Your task to perform on an android device: Go to settings Image 0: 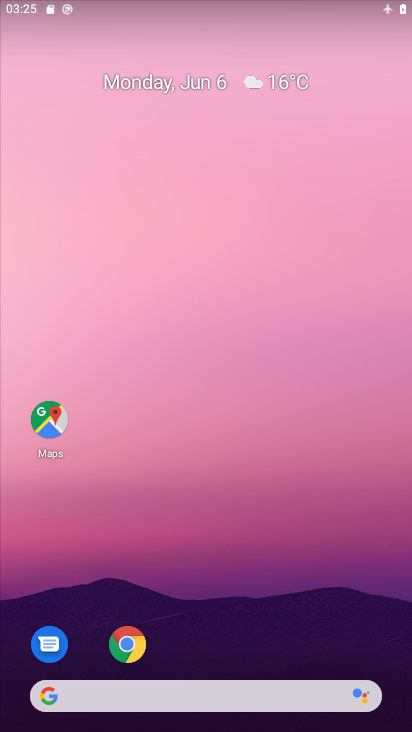
Step 0: drag from (236, 666) to (252, 0)
Your task to perform on an android device: Go to settings Image 1: 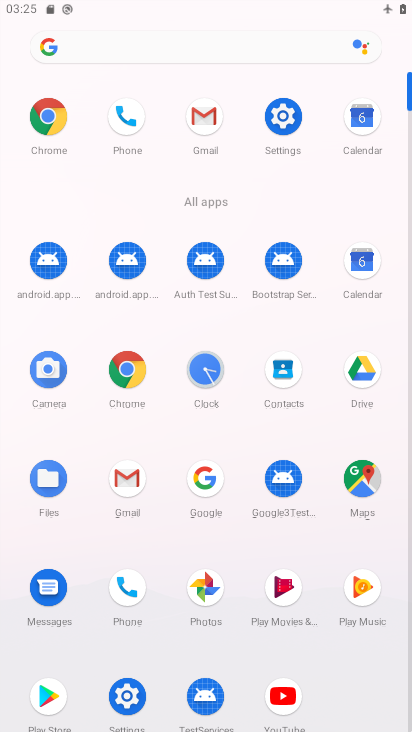
Step 1: click (288, 159)
Your task to perform on an android device: Go to settings Image 2: 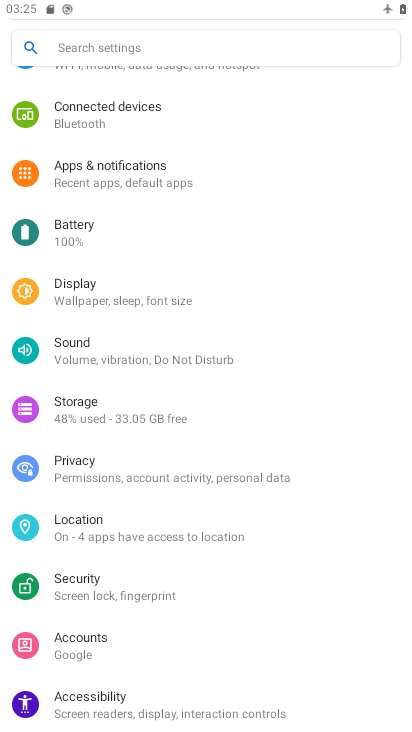
Step 2: task complete